Your task to perform on an android device: open app "Truecaller" (install if not already installed) and enter user name: "coauthor@gmail.com" and password: "quadrangle" Image 0: 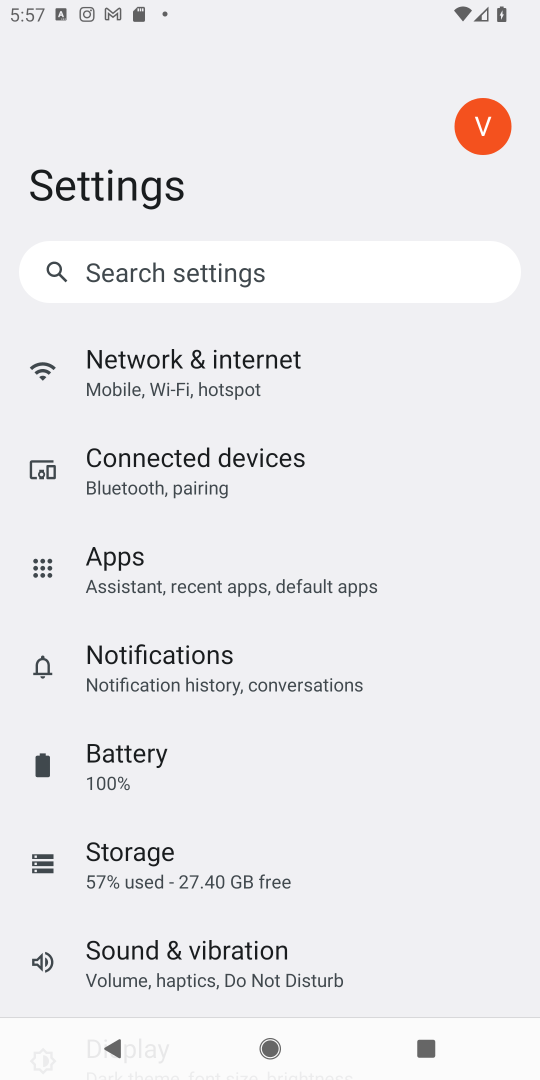
Step 0: press home button
Your task to perform on an android device: open app "Truecaller" (install if not already installed) and enter user name: "coauthor@gmail.com" and password: "quadrangle" Image 1: 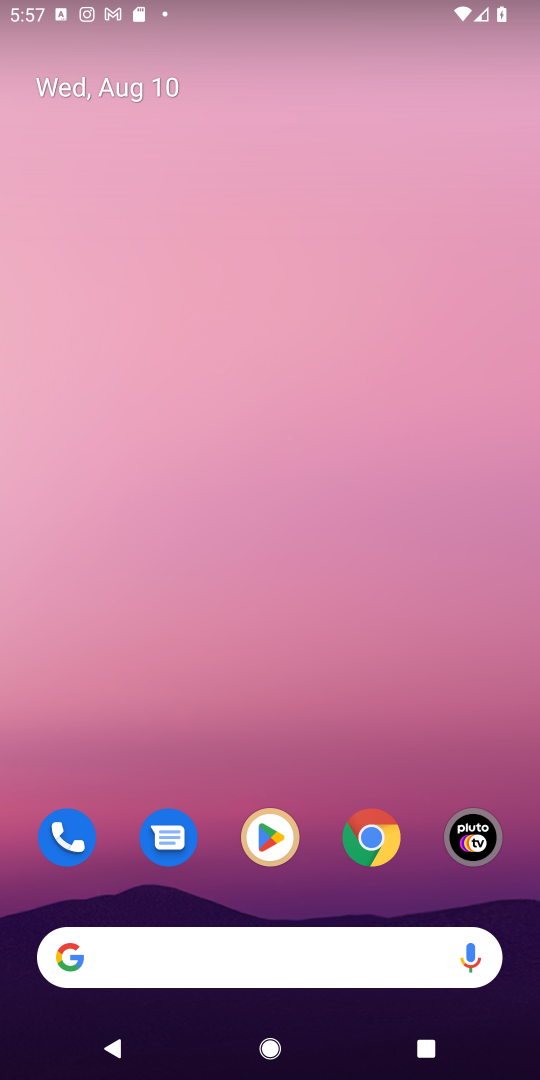
Step 1: click (282, 838)
Your task to perform on an android device: open app "Truecaller" (install if not already installed) and enter user name: "coauthor@gmail.com" and password: "quadrangle" Image 2: 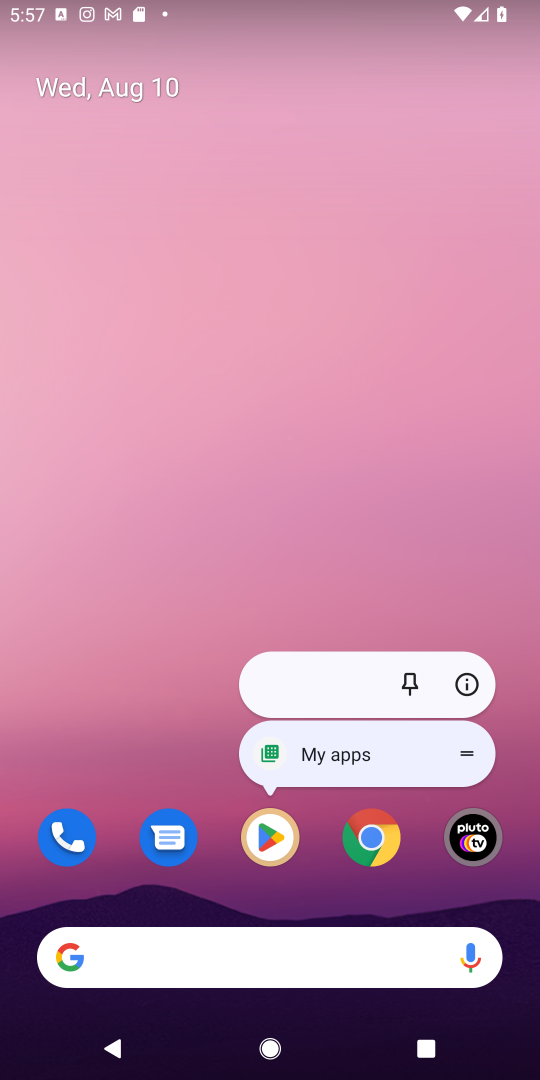
Step 2: click (281, 838)
Your task to perform on an android device: open app "Truecaller" (install if not already installed) and enter user name: "coauthor@gmail.com" and password: "quadrangle" Image 3: 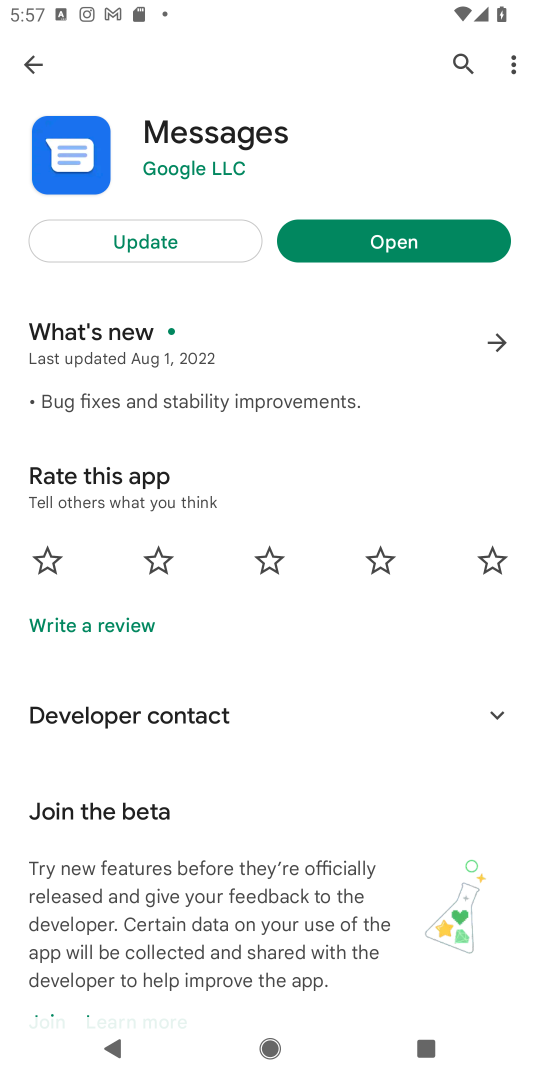
Step 3: click (462, 58)
Your task to perform on an android device: open app "Truecaller" (install if not already installed) and enter user name: "coauthor@gmail.com" and password: "quadrangle" Image 4: 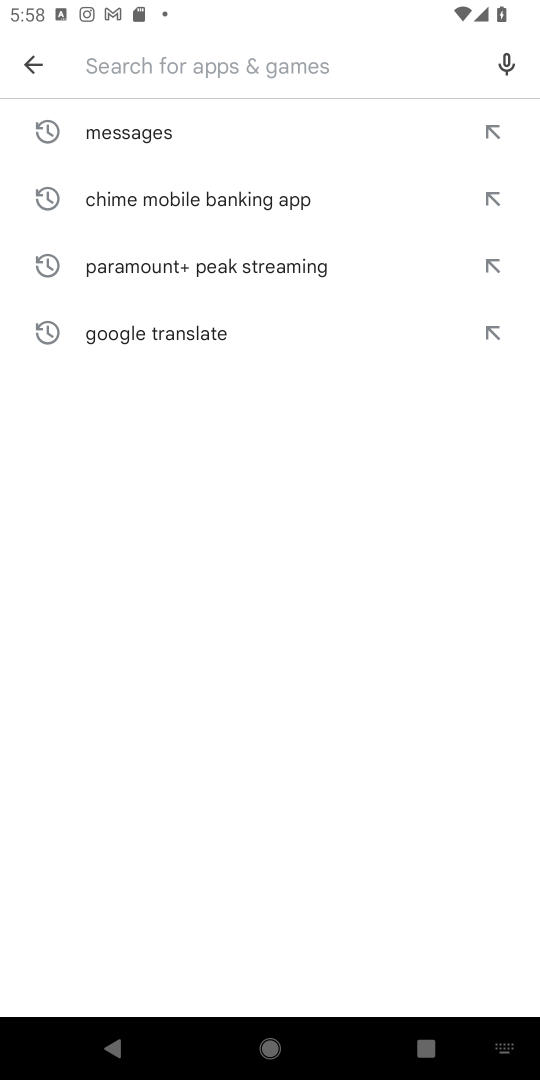
Step 4: type "Truecaller"
Your task to perform on an android device: open app "Truecaller" (install if not already installed) and enter user name: "coauthor@gmail.com" and password: "quadrangle" Image 5: 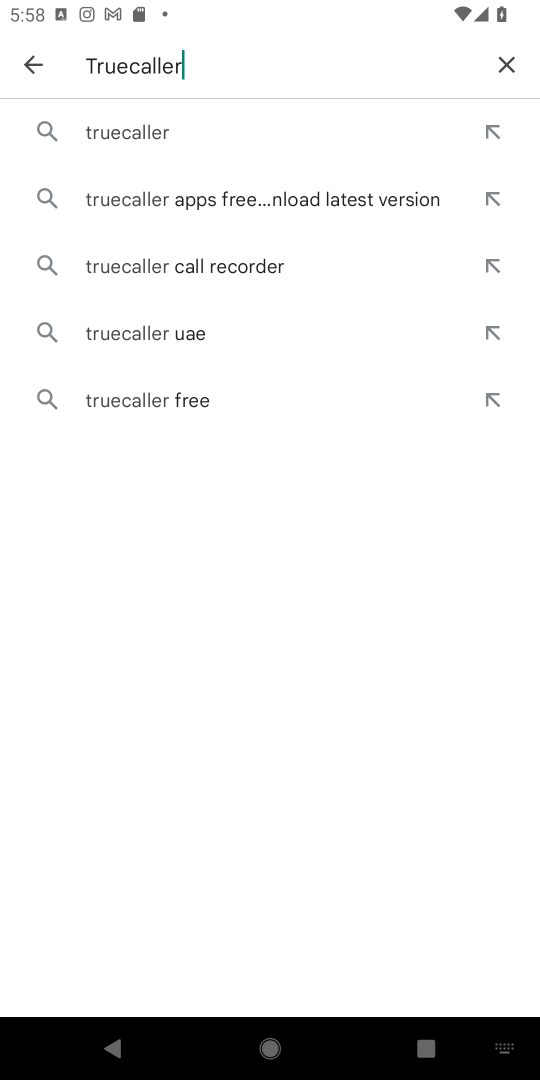
Step 5: click (119, 124)
Your task to perform on an android device: open app "Truecaller" (install if not already installed) and enter user name: "coauthor@gmail.com" and password: "quadrangle" Image 6: 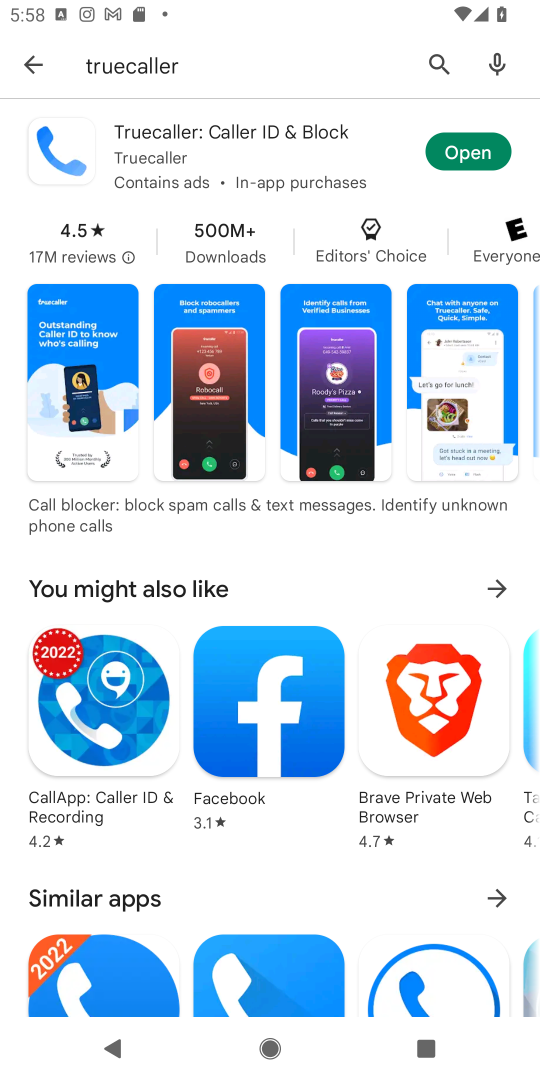
Step 6: click (485, 144)
Your task to perform on an android device: open app "Truecaller" (install if not already installed) and enter user name: "coauthor@gmail.com" and password: "quadrangle" Image 7: 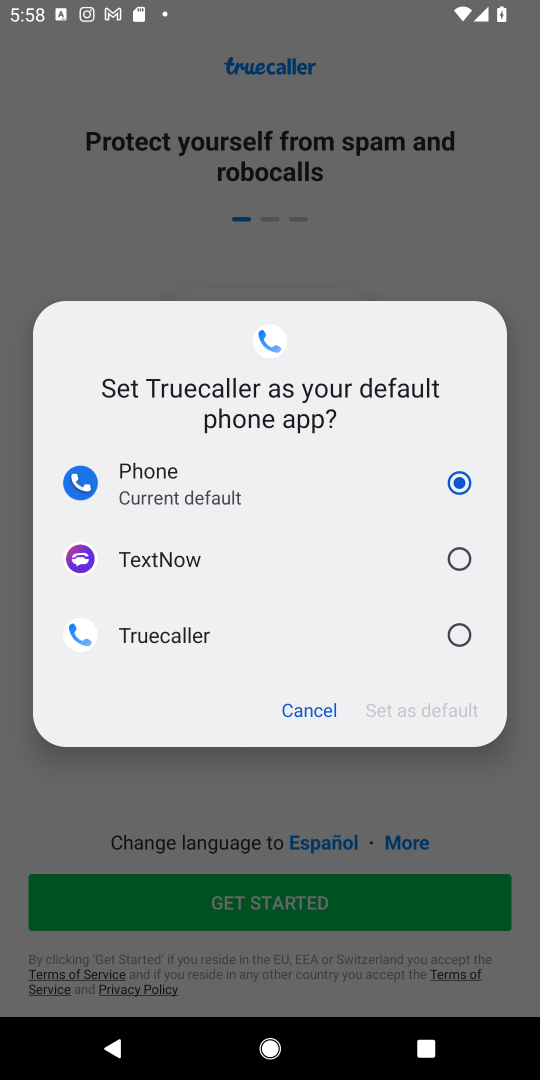
Step 7: task complete